Your task to perform on an android device: change text size in settings app Image 0: 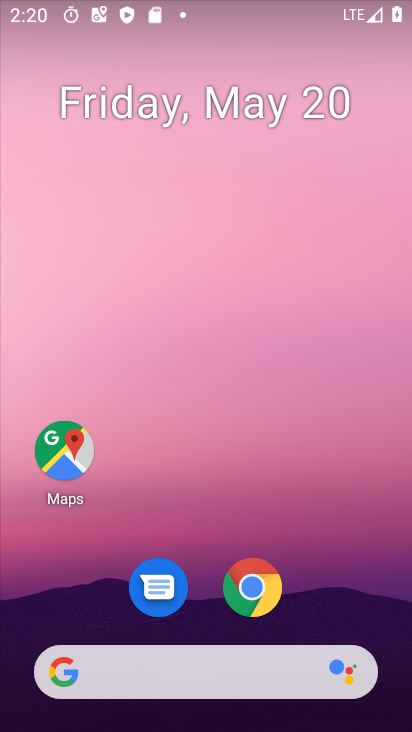
Step 0: drag from (307, 492) to (265, 74)
Your task to perform on an android device: change text size in settings app Image 1: 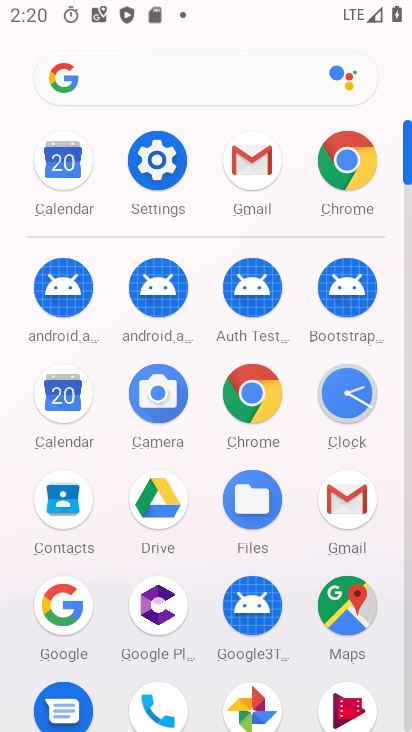
Step 1: click (145, 140)
Your task to perform on an android device: change text size in settings app Image 2: 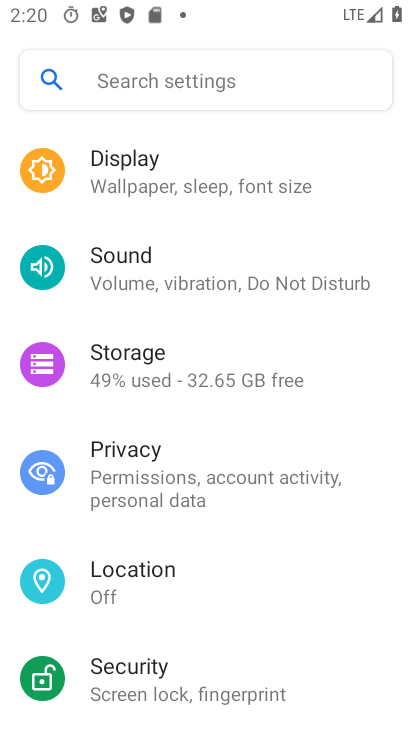
Step 2: drag from (246, 643) to (285, 199)
Your task to perform on an android device: change text size in settings app Image 3: 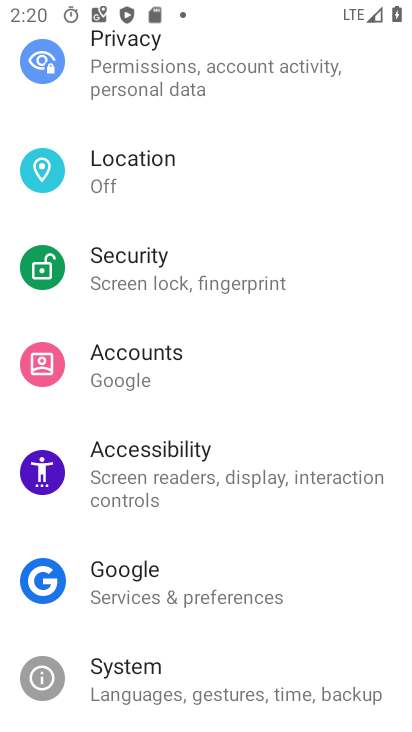
Step 3: drag from (220, 180) to (199, 730)
Your task to perform on an android device: change text size in settings app Image 4: 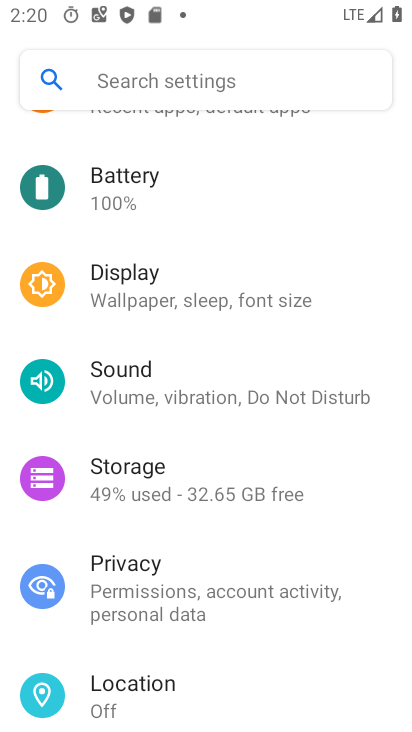
Step 4: click (199, 294)
Your task to perform on an android device: change text size in settings app Image 5: 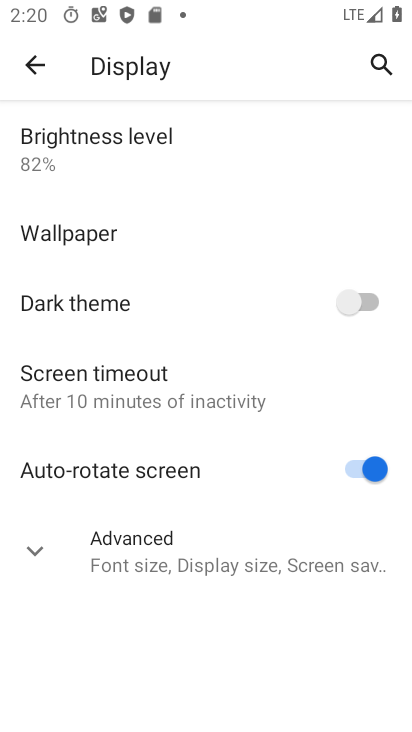
Step 5: click (141, 557)
Your task to perform on an android device: change text size in settings app Image 6: 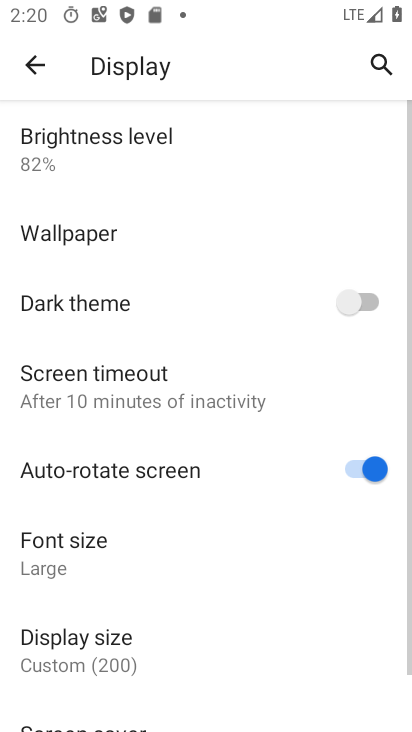
Step 6: click (87, 552)
Your task to perform on an android device: change text size in settings app Image 7: 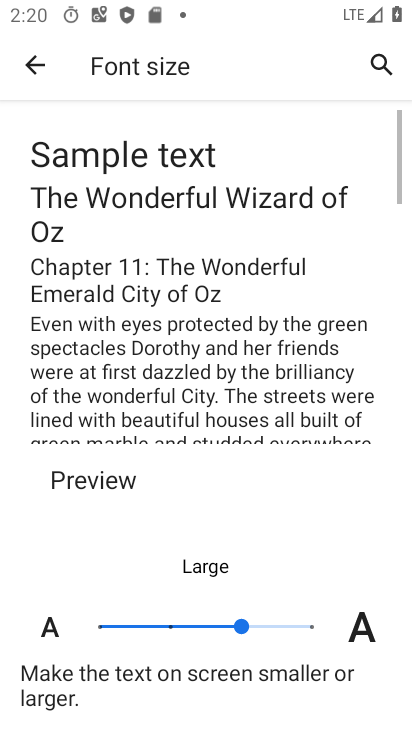
Step 7: click (109, 627)
Your task to perform on an android device: change text size in settings app Image 8: 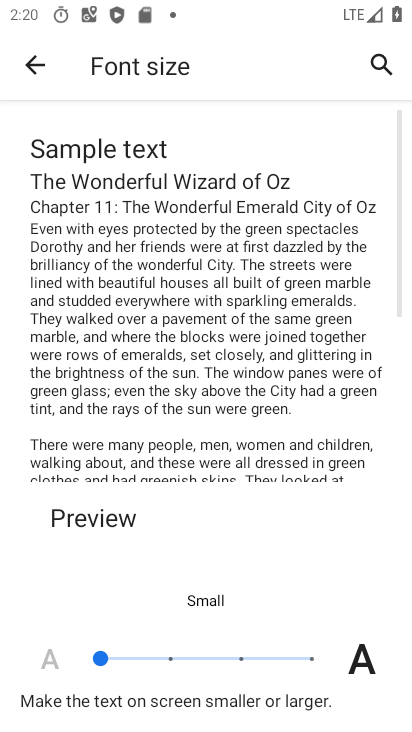
Step 8: task complete